Your task to perform on an android device: turn notification dots off Image 0: 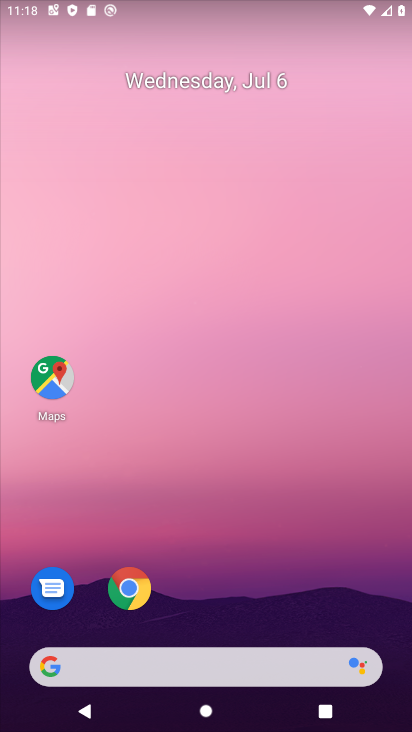
Step 0: drag from (257, 592) to (302, 69)
Your task to perform on an android device: turn notification dots off Image 1: 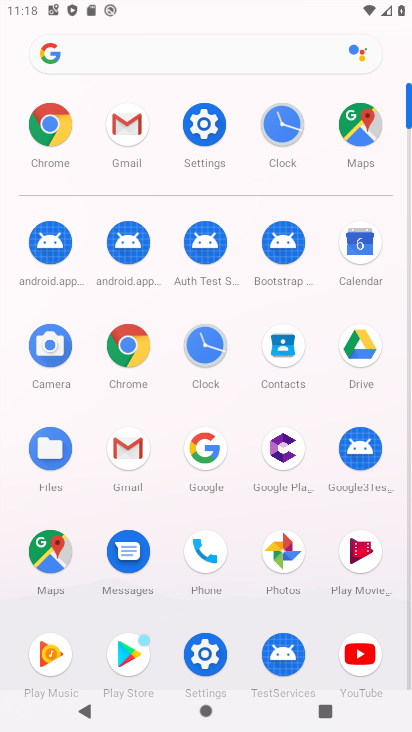
Step 1: click (210, 116)
Your task to perform on an android device: turn notification dots off Image 2: 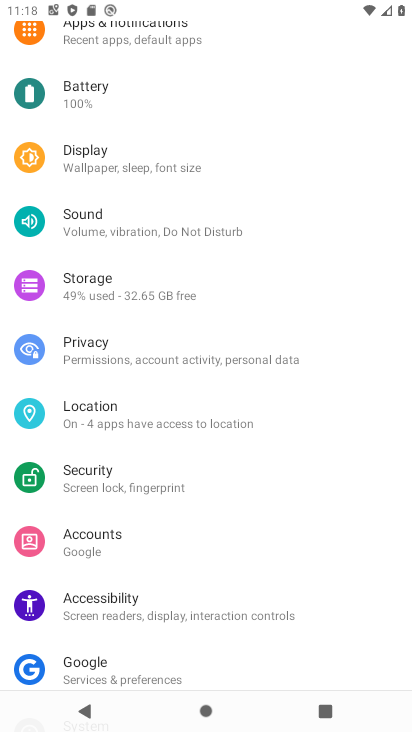
Step 2: drag from (208, 136) to (186, 722)
Your task to perform on an android device: turn notification dots off Image 3: 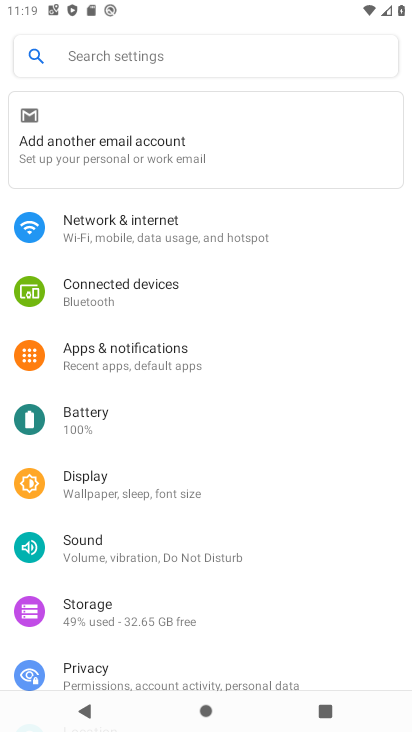
Step 3: click (134, 47)
Your task to perform on an android device: turn notification dots off Image 4: 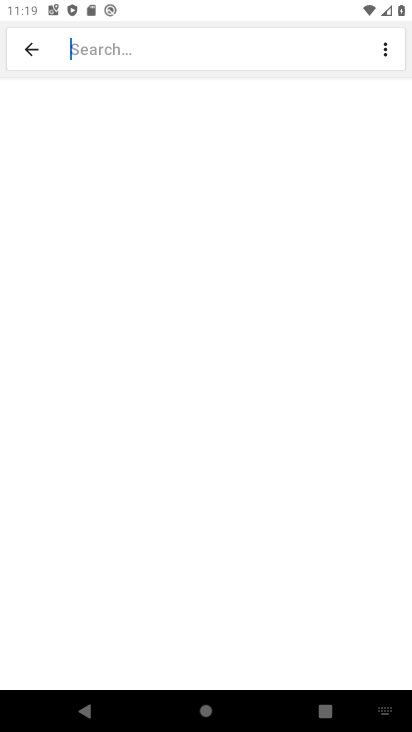
Step 4: type "notification dots  "
Your task to perform on an android device: turn notification dots off Image 5: 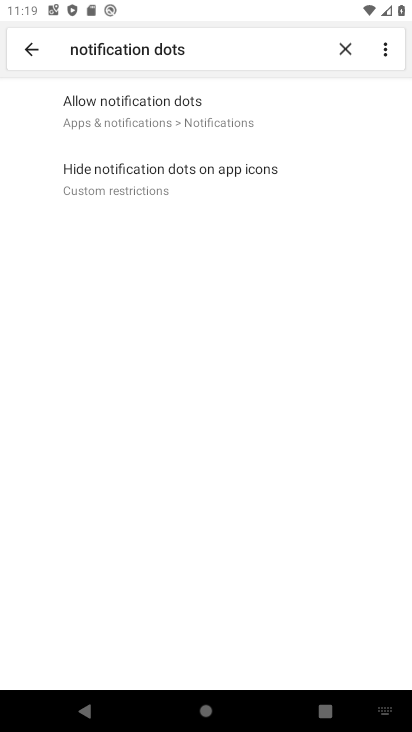
Step 5: click (133, 125)
Your task to perform on an android device: turn notification dots off Image 6: 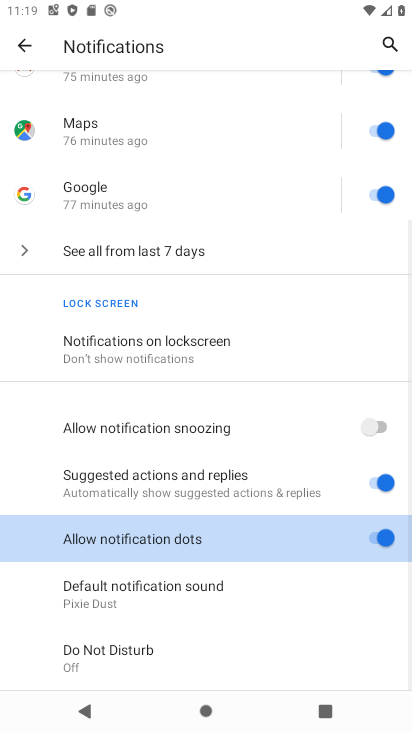
Step 6: click (378, 546)
Your task to perform on an android device: turn notification dots off Image 7: 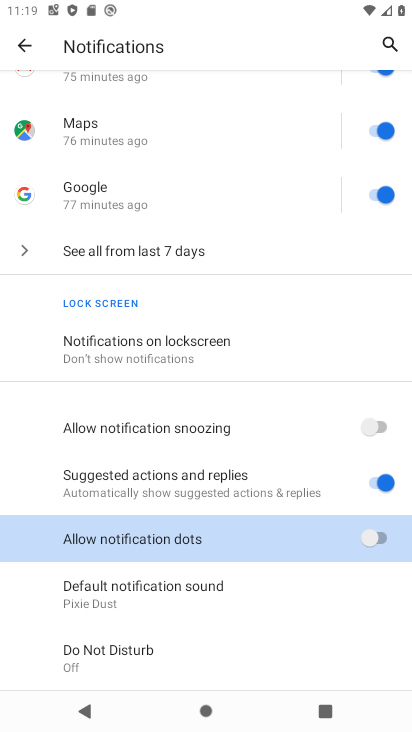
Step 7: task complete